Your task to perform on an android device: What's the weather today? Image 0: 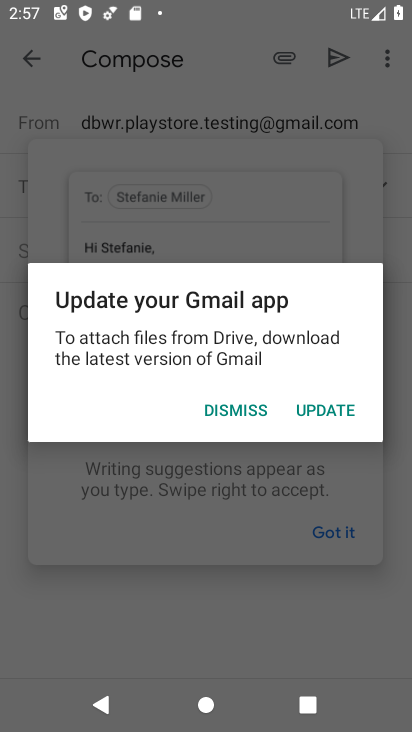
Step 0: press home button
Your task to perform on an android device: What's the weather today? Image 1: 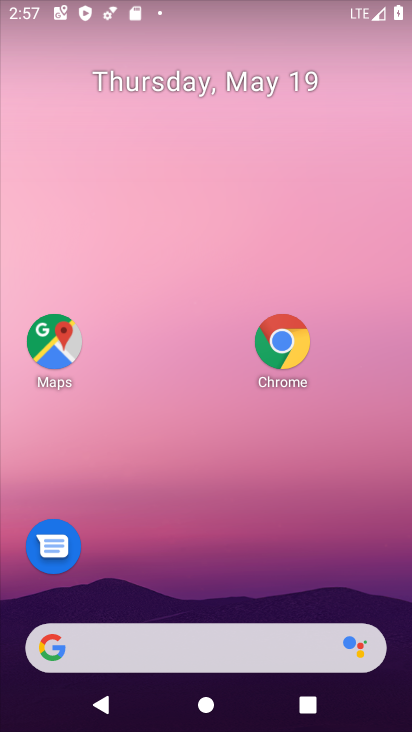
Step 1: click (59, 648)
Your task to perform on an android device: What's the weather today? Image 2: 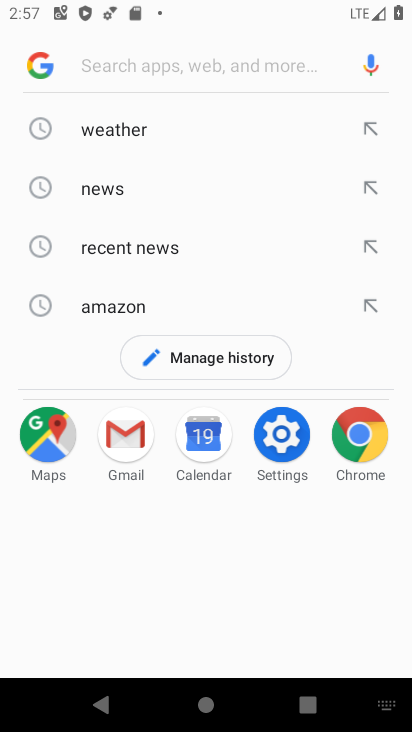
Step 2: click (131, 133)
Your task to perform on an android device: What's the weather today? Image 3: 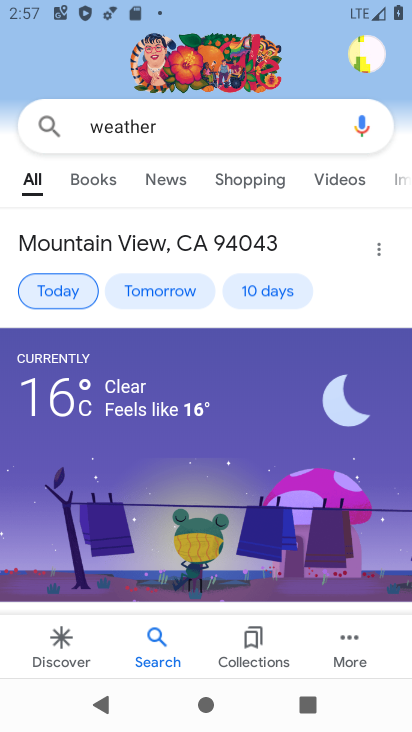
Step 3: task complete